Your task to perform on an android device: turn on bluetooth scan Image 0: 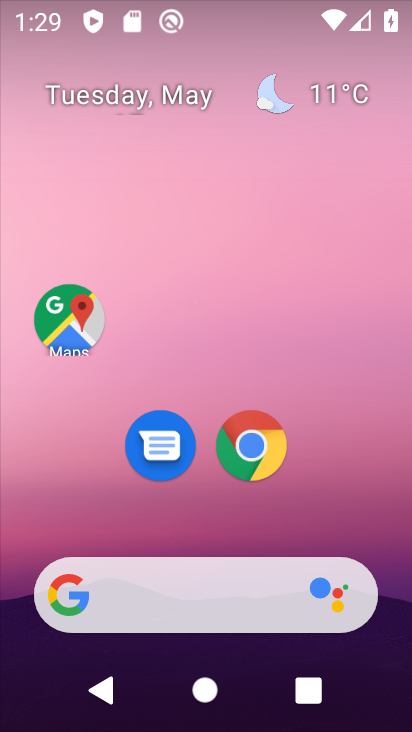
Step 0: drag from (394, 572) to (297, 82)
Your task to perform on an android device: turn on bluetooth scan Image 1: 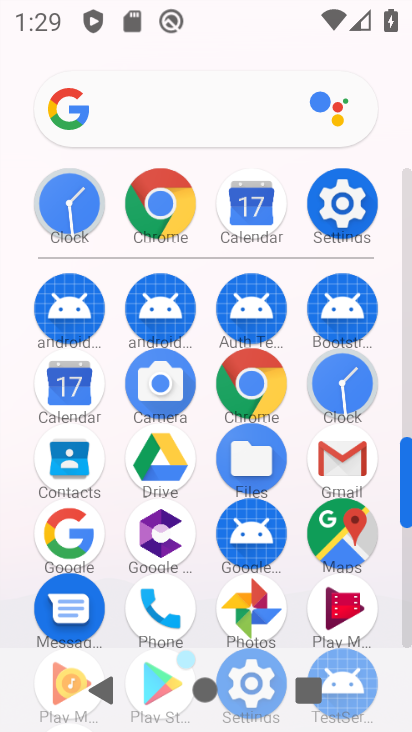
Step 1: click (334, 188)
Your task to perform on an android device: turn on bluetooth scan Image 2: 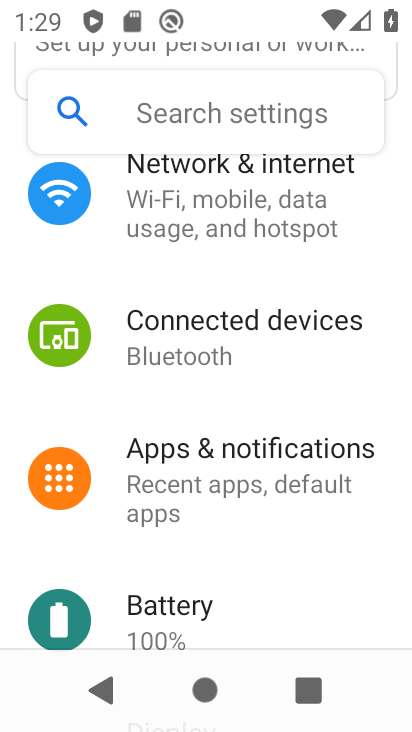
Step 2: drag from (217, 444) to (197, 253)
Your task to perform on an android device: turn on bluetooth scan Image 3: 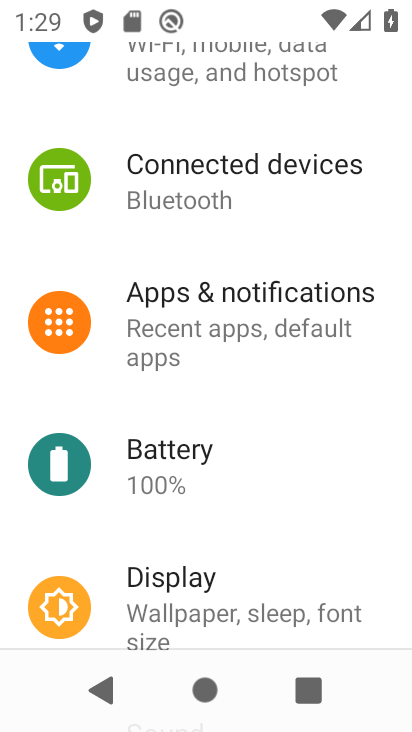
Step 3: drag from (242, 503) to (225, 167)
Your task to perform on an android device: turn on bluetooth scan Image 4: 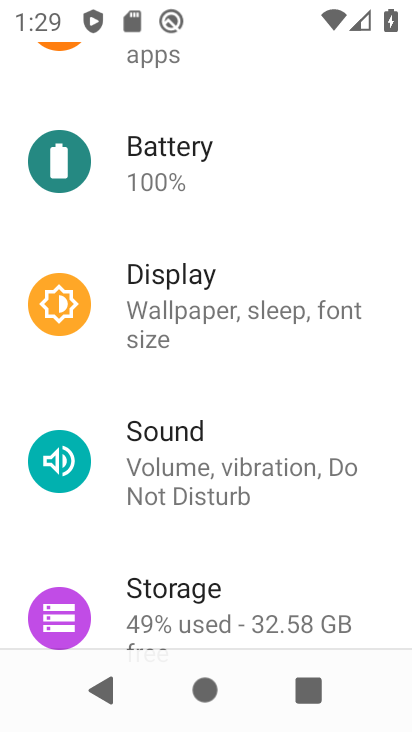
Step 4: drag from (262, 569) to (252, 329)
Your task to perform on an android device: turn on bluetooth scan Image 5: 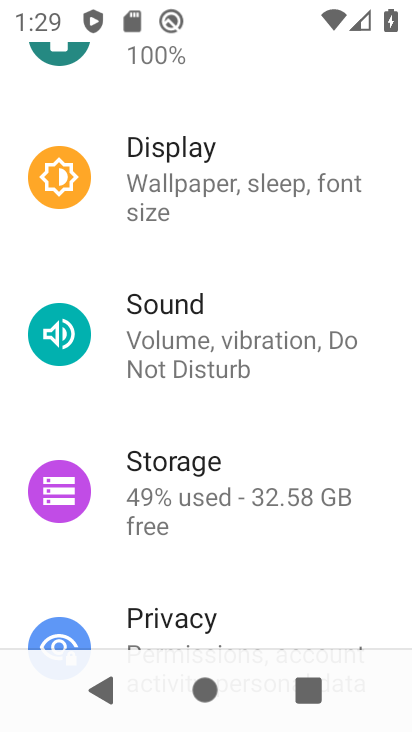
Step 5: drag from (278, 477) to (283, 112)
Your task to perform on an android device: turn on bluetooth scan Image 6: 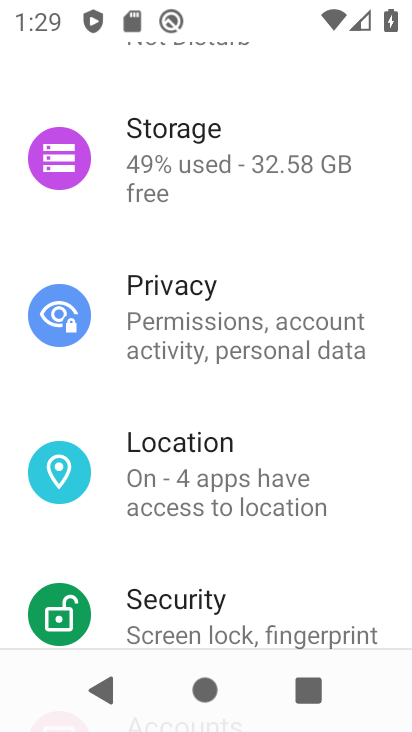
Step 6: click (234, 457)
Your task to perform on an android device: turn on bluetooth scan Image 7: 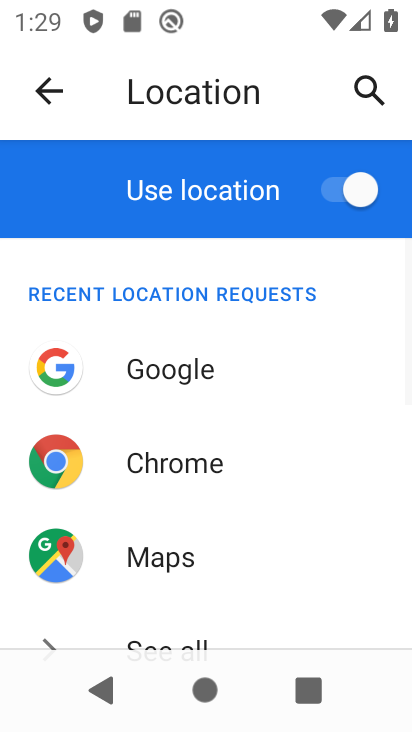
Step 7: drag from (232, 575) to (229, 280)
Your task to perform on an android device: turn on bluetooth scan Image 8: 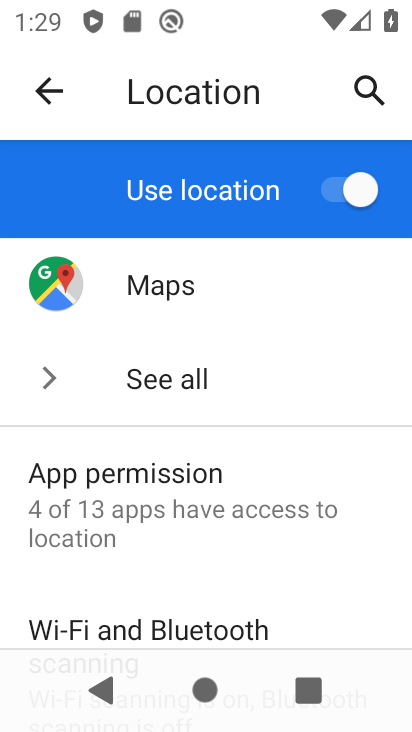
Step 8: drag from (206, 566) to (201, 294)
Your task to perform on an android device: turn on bluetooth scan Image 9: 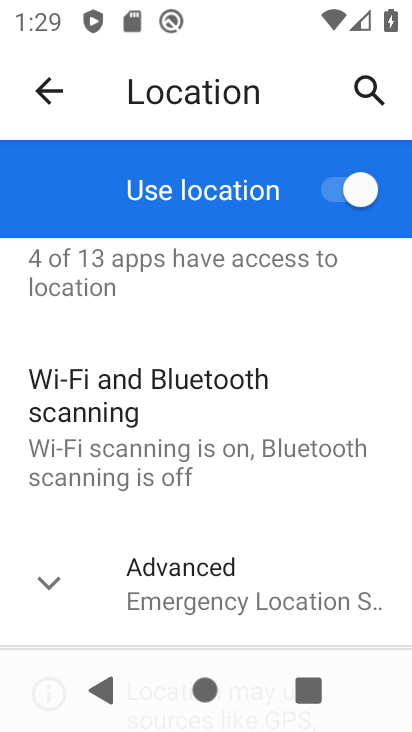
Step 9: click (139, 414)
Your task to perform on an android device: turn on bluetooth scan Image 10: 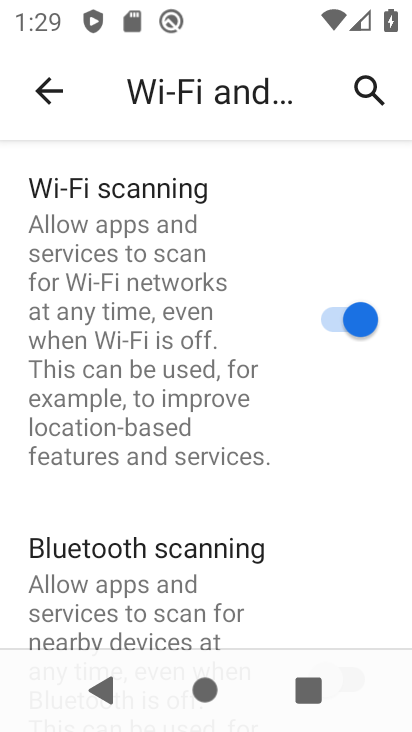
Step 10: drag from (219, 572) to (226, 355)
Your task to perform on an android device: turn on bluetooth scan Image 11: 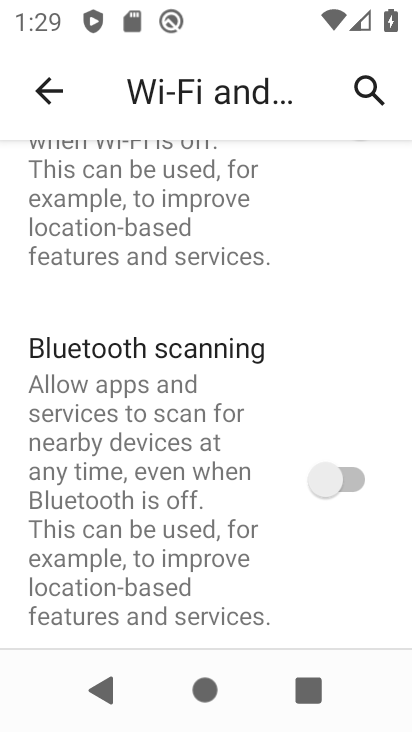
Step 11: click (352, 490)
Your task to perform on an android device: turn on bluetooth scan Image 12: 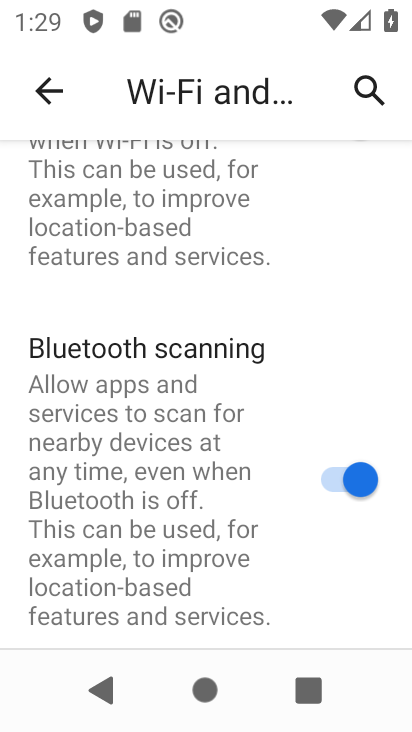
Step 12: task complete